Your task to perform on an android device: turn off javascript in the chrome app Image 0: 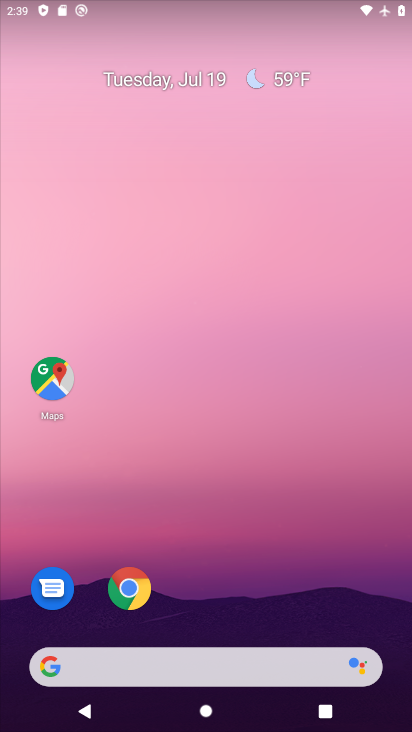
Step 0: press home button
Your task to perform on an android device: turn off javascript in the chrome app Image 1: 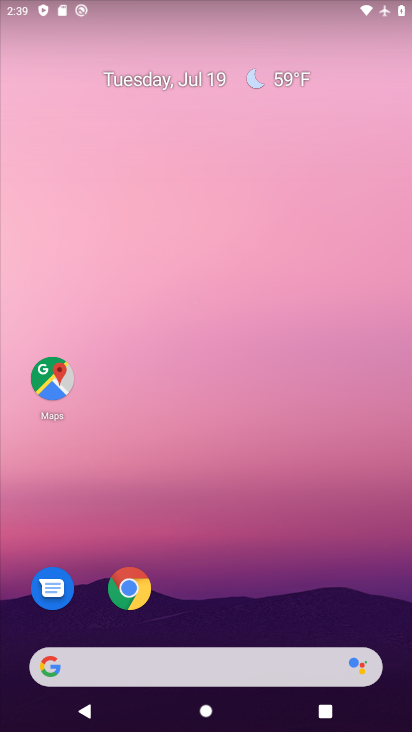
Step 1: drag from (274, 612) to (355, 33)
Your task to perform on an android device: turn off javascript in the chrome app Image 2: 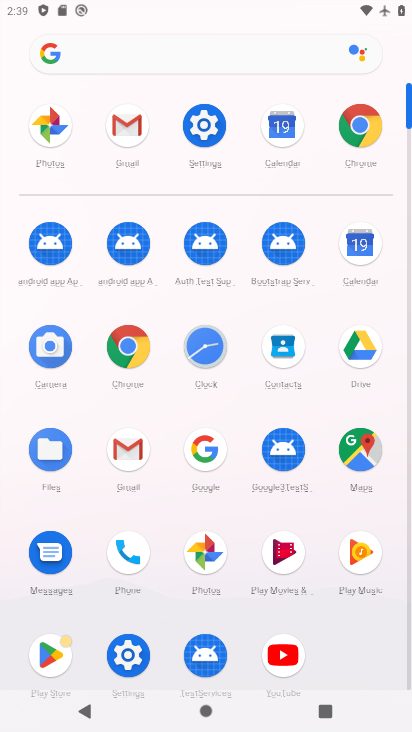
Step 2: click (367, 123)
Your task to perform on an android device: turn off javascript in the chrome app Image 3: 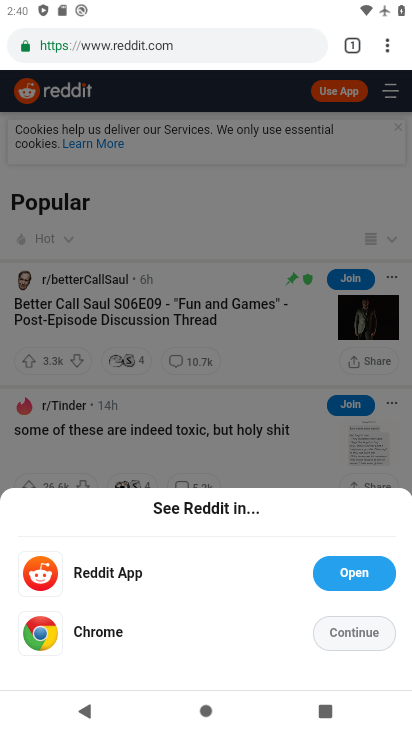
Step 3: drag from (391, 42) to (228, 512)
Your task to perform on an android device: turn off javascript in the chrome app Image 4: 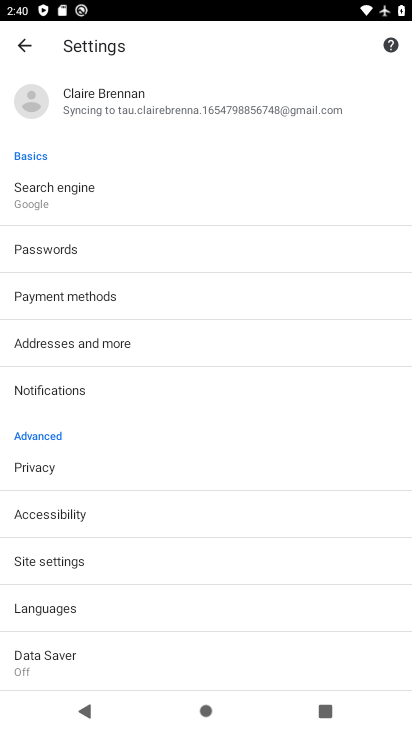
Step 4: click (11, 559)
Your task to perform on an android device: turn off javascript in the chrome app Image 5: 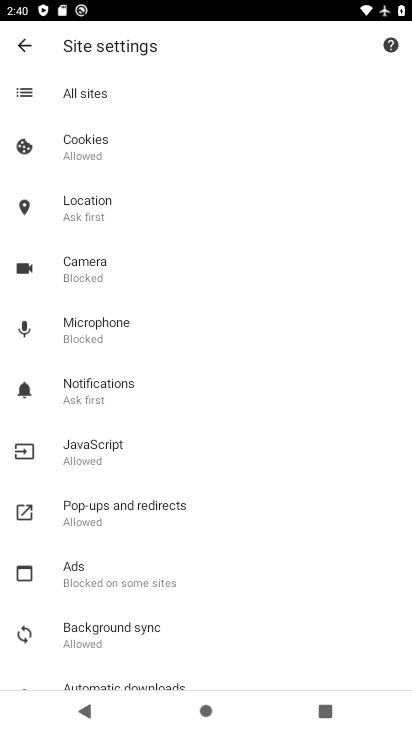
Step 5: click (114, 449)
Your task to perform on an android device: turn off javascript in the chrome app Image 6: 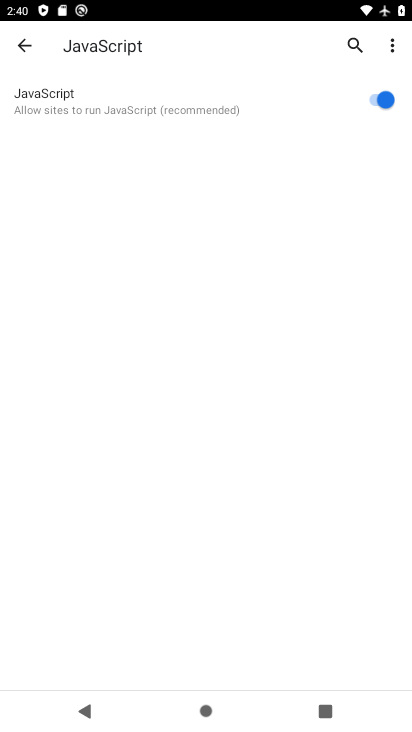
Step 6: click (385, 103)
Your task to perform on an android device: turn off javascript in the chrome app Image 7: 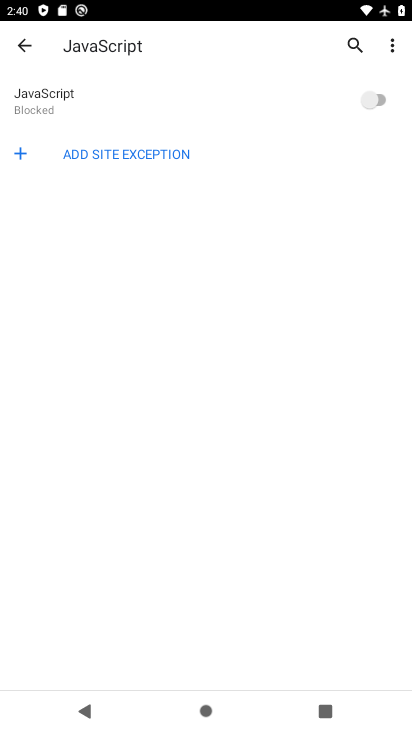
Step 7: task complete